Your task to perform on an android device: Open the Play Movies app and select the watchlist tab. Image 0: 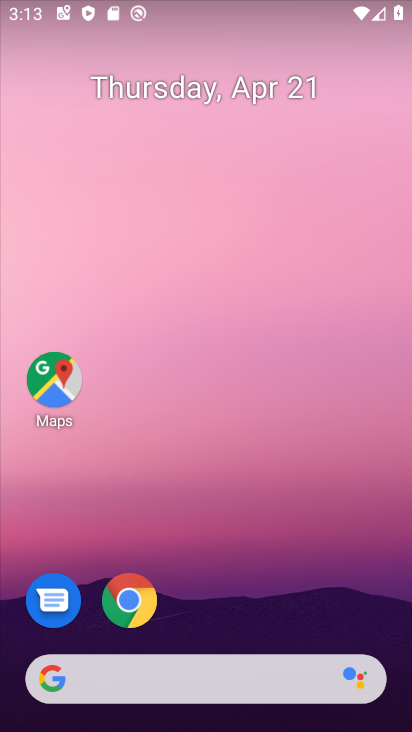
Step 0: drag from (243, 603) to (223, 3)
Your task to perform on an android device: Open the Play Movies app and select the watchlist tab. Image 1: 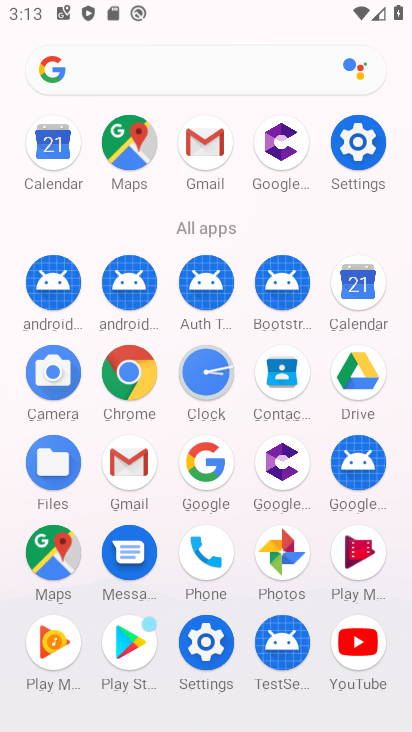
Step 1: click (355, 554)
Your task to perform on an android device: Open the Play Movies app and select the watchlist tab. Image 2: 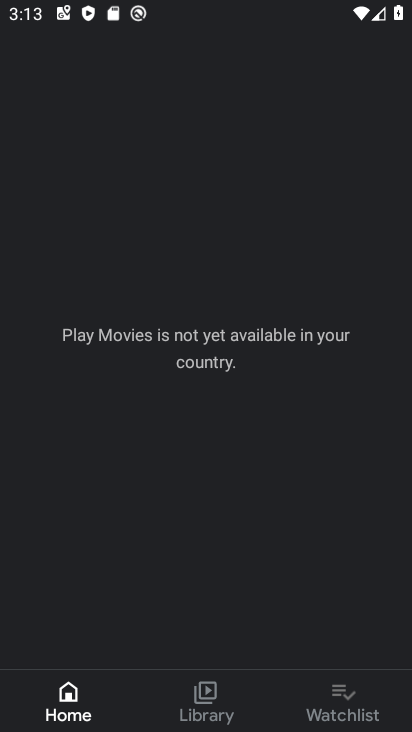
Step 2: click (337, 707)
Your task to perform on an android device: Open the Play Movies app and select the watchlist tab. Image 3: 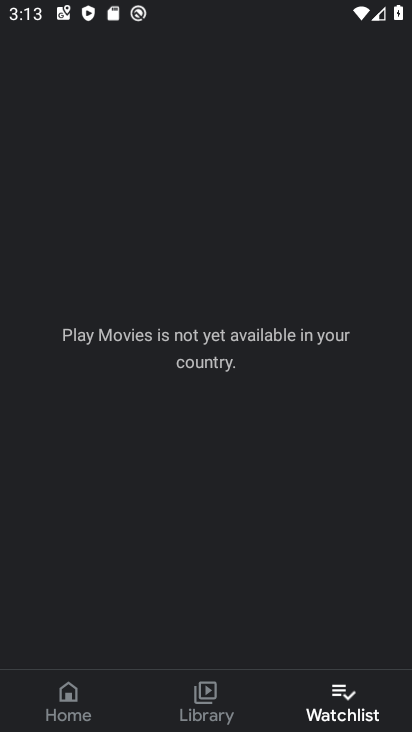
Step 3: task complete